Your task to perform on an android device: open app "Booking.com: Hotels and more" Image 0: 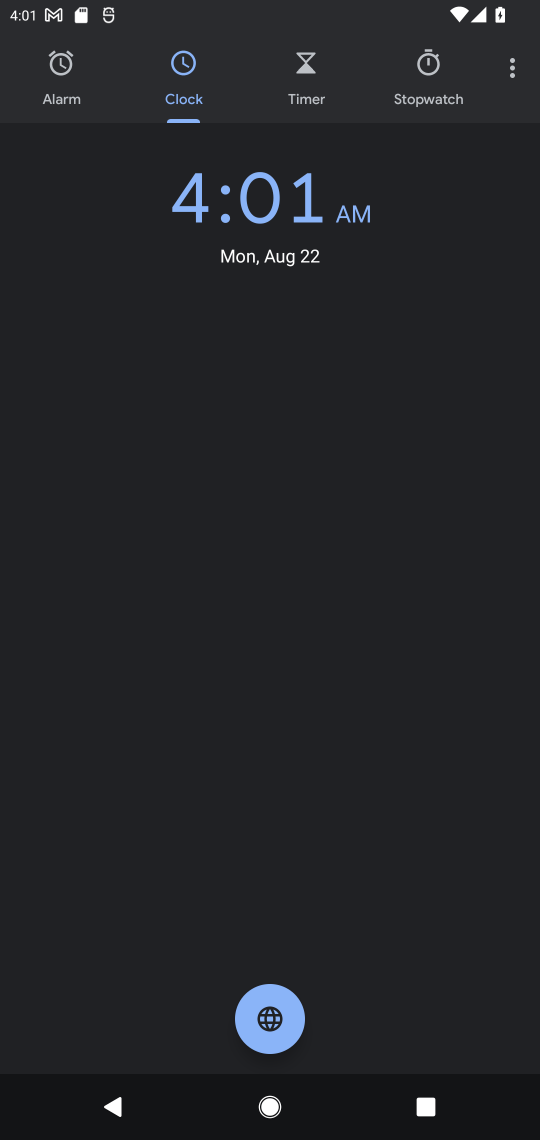
Step 0: press home button
Your task to perform on an android device: open app "Booking.com: Hotels and more" Image 1: 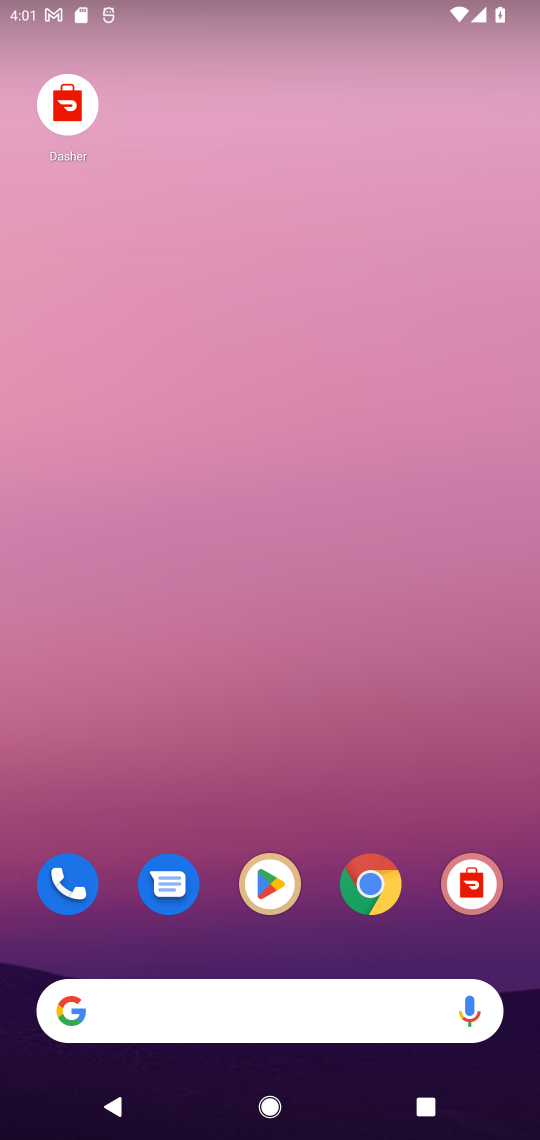
Step 1: click (285, 878)
Your task to perform on an android device: open app "Booking.com: Hotels and more" Image 2: 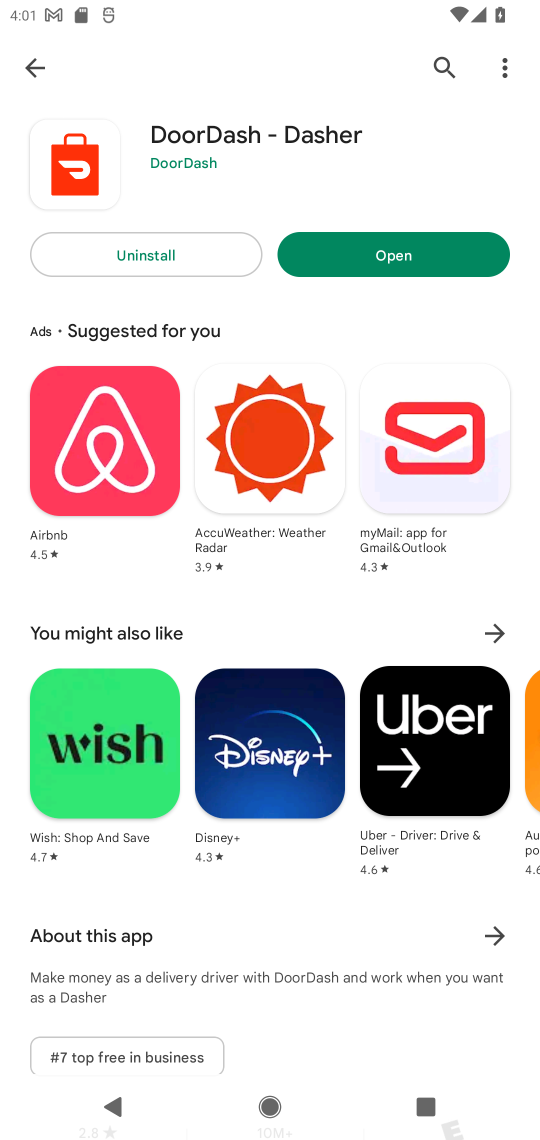
Step 2: click (33, 60)
Your task to perform on an android device: open app "Booking.com: Hotels and more" Image 3: 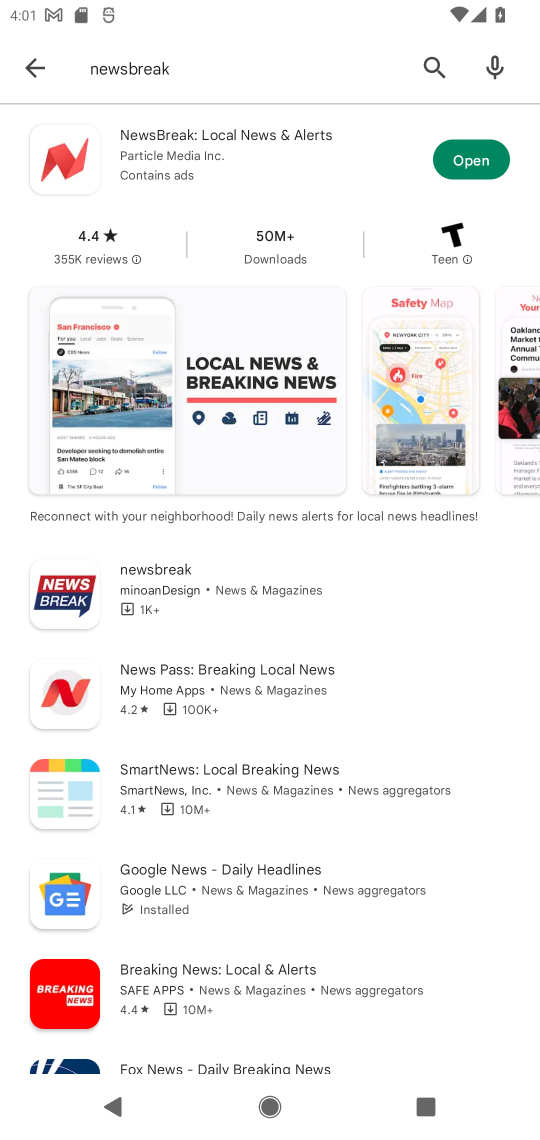
Step 3: click (226, 74)
Your task to perform on an android device: open app "Booking.com: Hotels and more" Image 4: 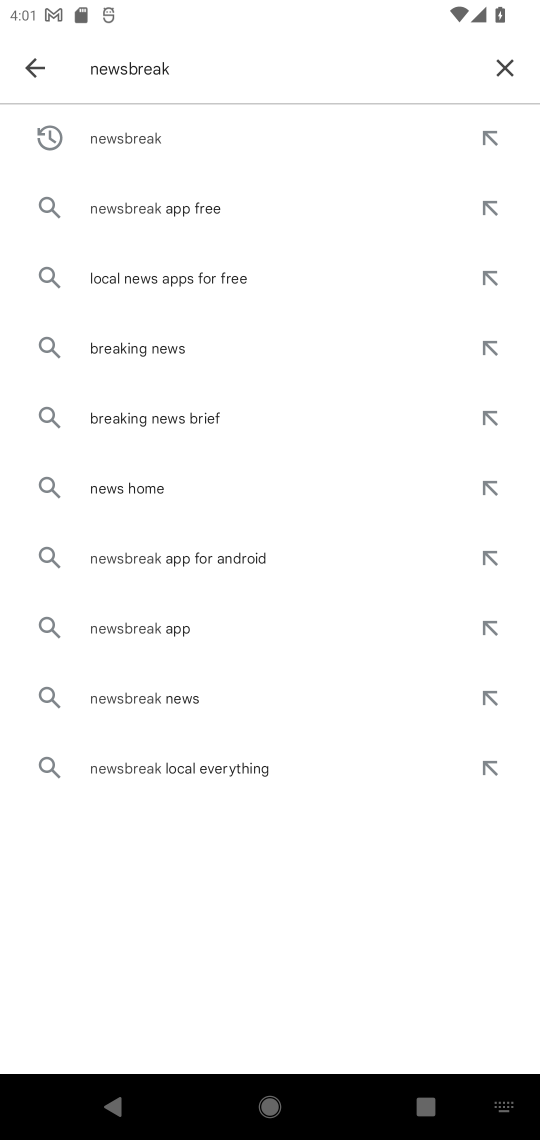
Step 4: click (511, 56)
Your task to perform on an android device: open app "Booking.com: Hotels and more" Image 5: 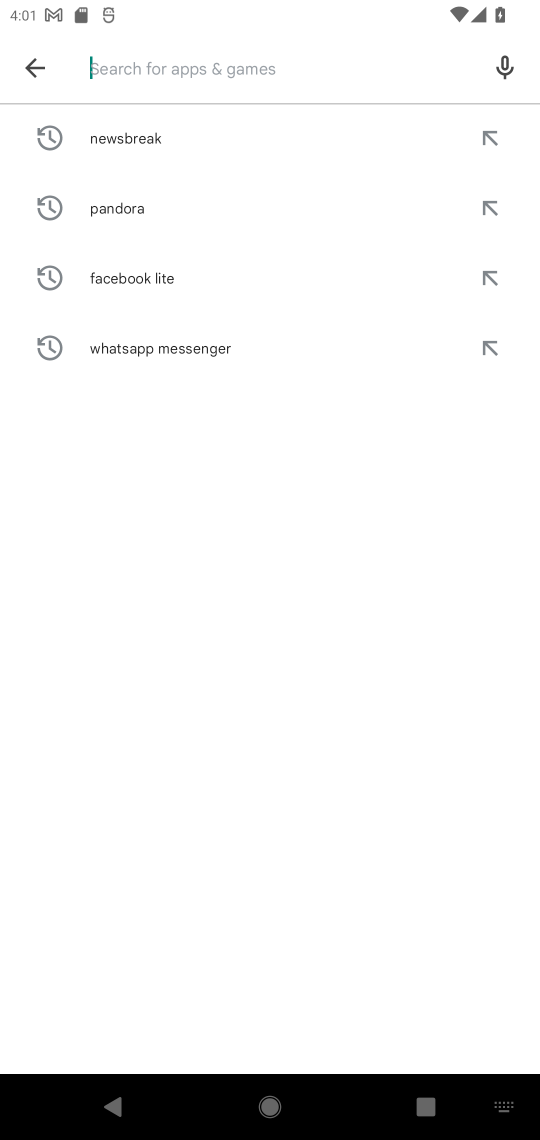
Step 5: type "Booking.com"
Your task to perform on an android device: open app "Booking.com: Hotels and more" Image 6: 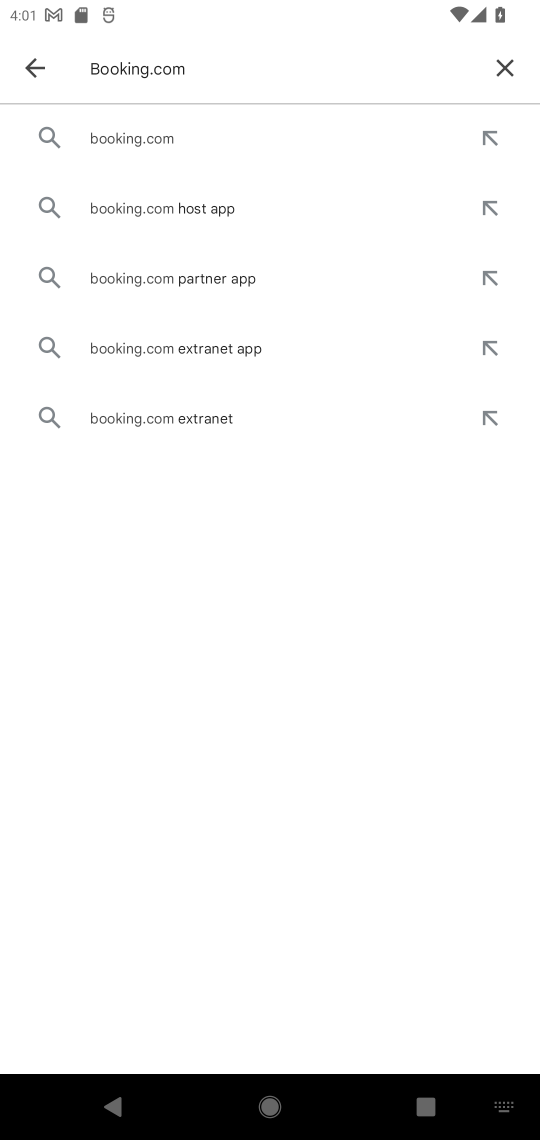
Step 6: click (154, 131)
Your task to perform on an android device: open app "Booking.com: Hotels and more" Image 7: 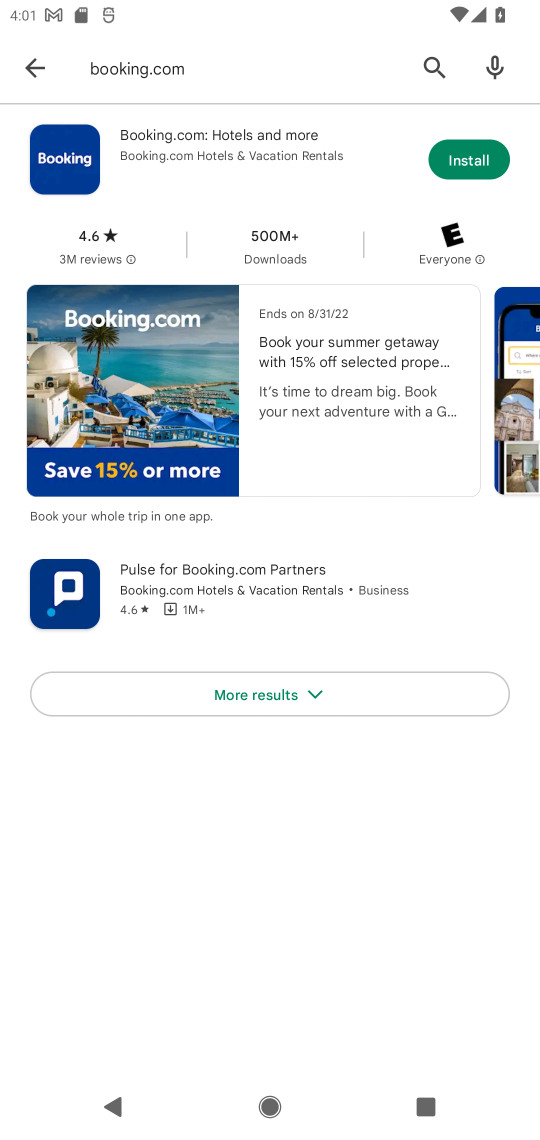
Step 7: task complete